Your task to perform on an android device: Open Chrome and go to settings Image 0: 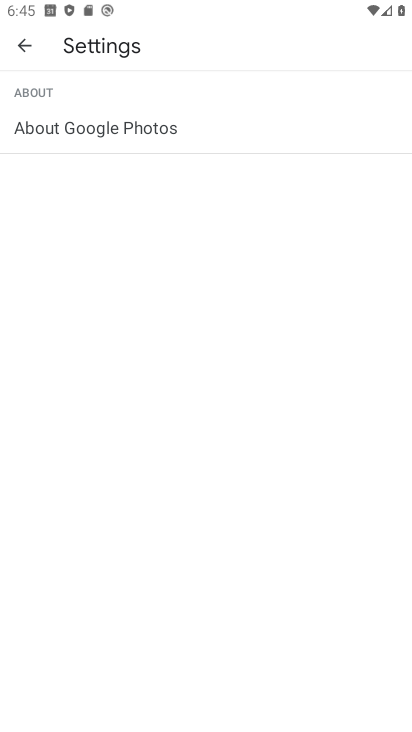
Step 0: press home button
Your task to perform on an android device: Open Chrome and go to settings Image 1: 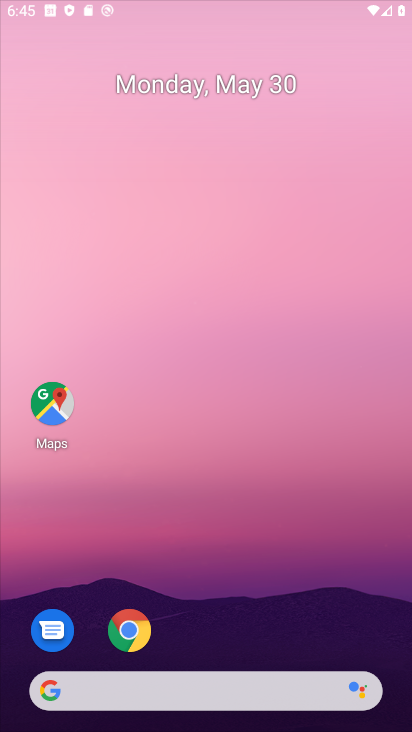
Step 1: drag from (301, 601) to (323, 1)
Your task to perform on an android device: Open Chrome and go to settings Image 2: 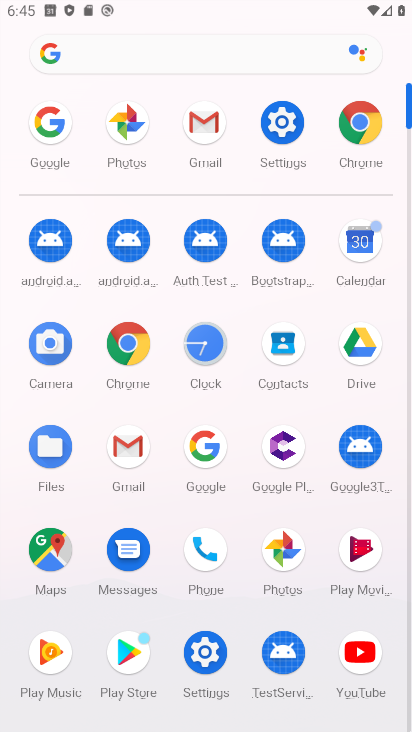
Step 2: click (354, 124)
Your task to perform on an android device: Open Chrome and go to settings Image 3: 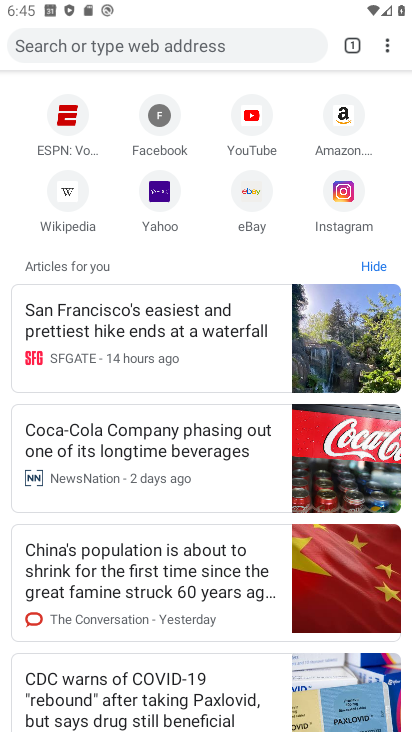
Step 3: click (389, 39)
Your task to perform on an android device: Open Chrome and go to settings Image 4: 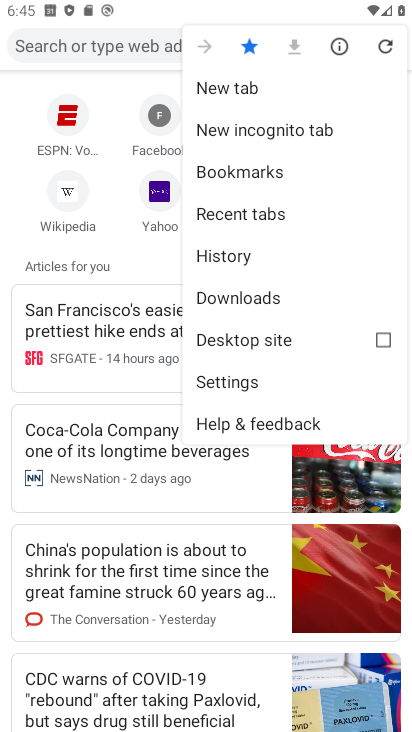
Step 4: click (253, 387)
Your task to perform on an android device: Open Chrome and go to settings Image 5: 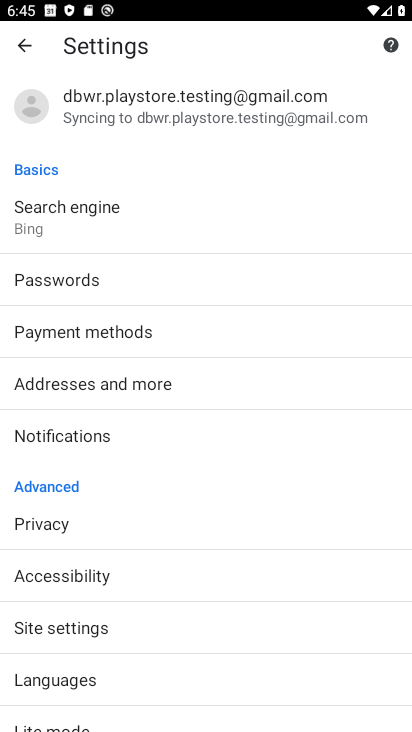
Step 5: task complete